Your task to perform on an android device: Open eBay Image 0: 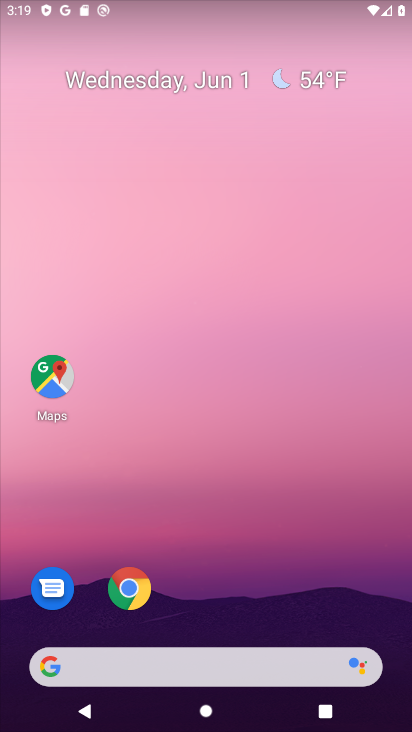
Step 0: click (132, 602)
Your task to perform on an android device: Open eBay Image 1: 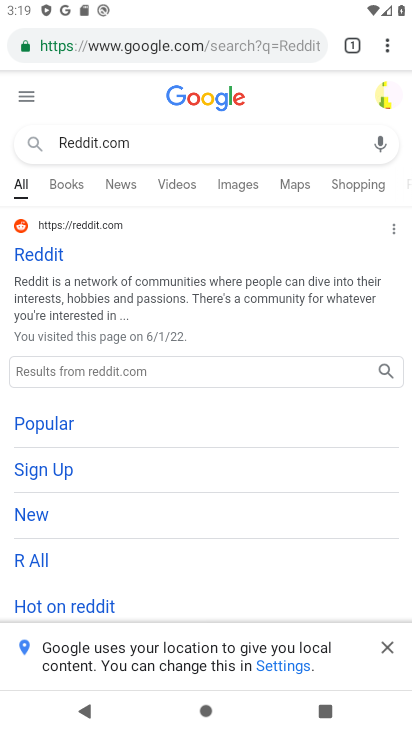
Step 1: click (148, 52)
Your task to perform on an android device: Open eBay Image 2: 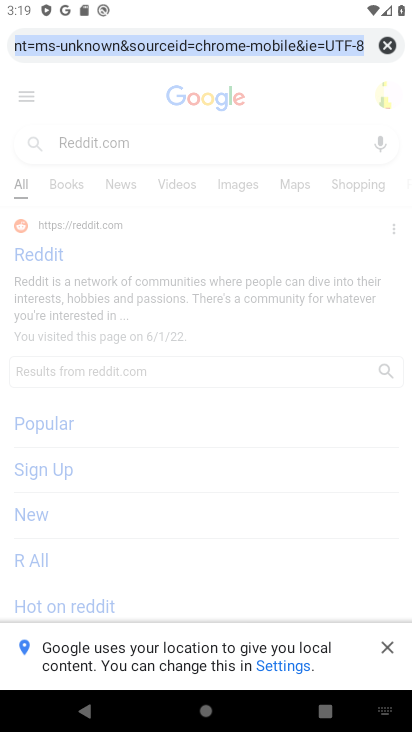
Step 2: type "eBay"
Your task to perform on an android device: Open eBay Image 3: 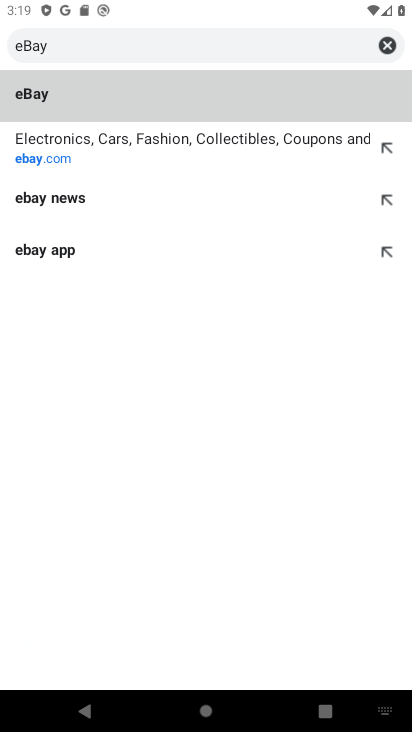
Step 3: click (79, 106)
Your task to perform on an android device: Open eBay Image 4: 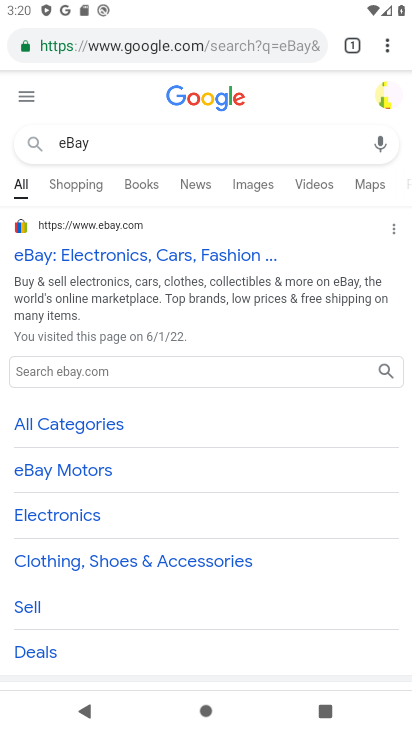
Step 4: task complete